Your task to perform on an android device: When is my next appointment? Image 0: 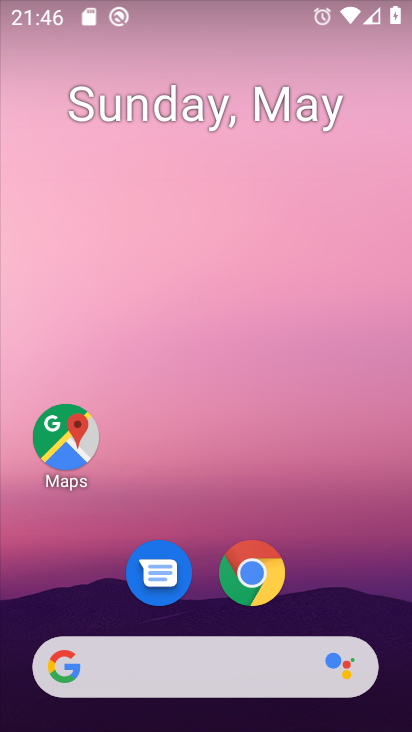
Step 0: drag from (234, 476) to (255, 19)
Your task to perform on an android device: When is my next appointment? Image 1: 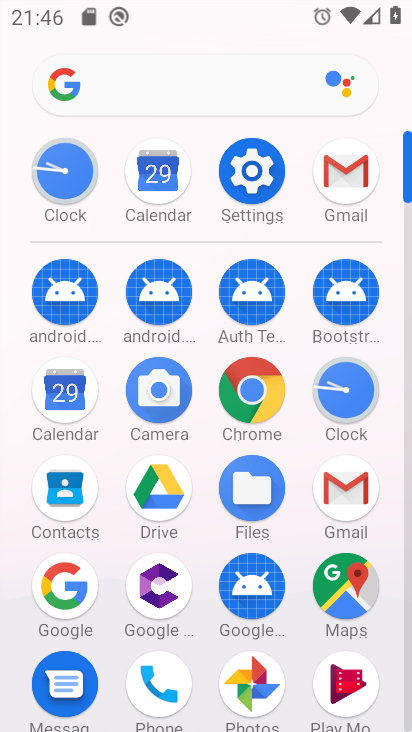
Step 1: click (73, 394)
Your task to perform on an android device: When is my next appointment? Image 2: 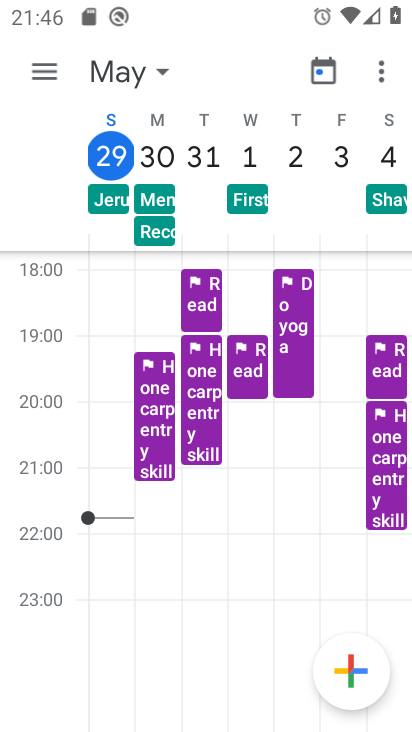
Step 2: click (117, 144)
Your task to perform on an android device: When is my next appointment? Image 3: 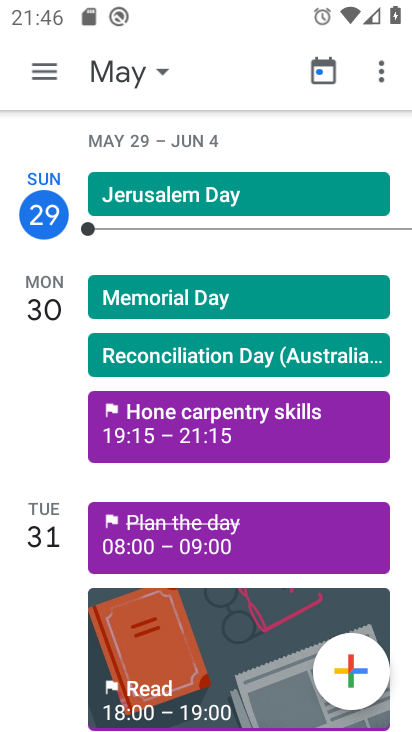
Step 3: task complete